Your task to perform on an android device: refresh tabs in the chrome app Image 0: 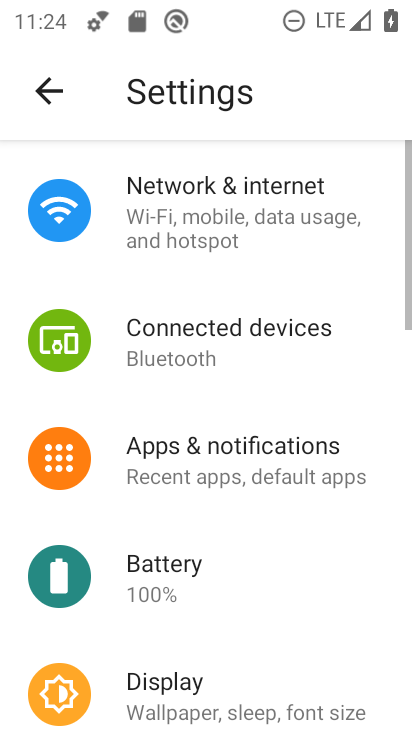
Step 0: press home button
Your task to perform on an android device: refresh tabs in the chrome app Image 1: 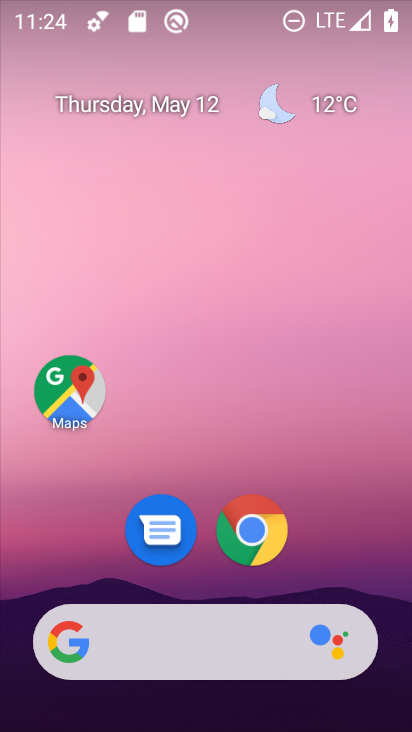
Step 1: click (266, 532)
Your task to perform on an android device: refresh tabs in the chrome app Image 2: 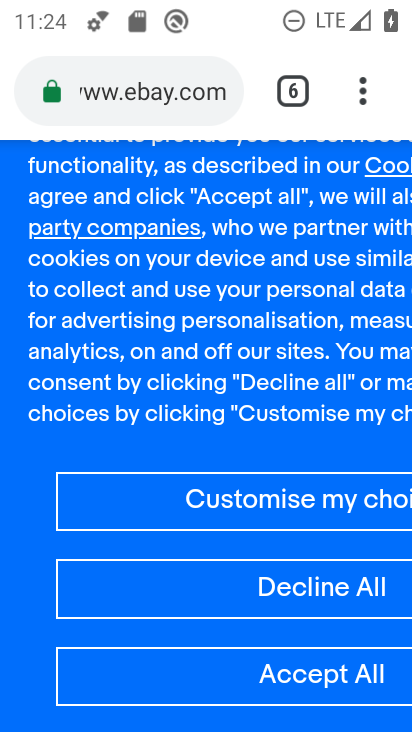
Step 2: click (359, 115)
Your task to perform on an android device: refresh tabs in the chrome app Image 3: 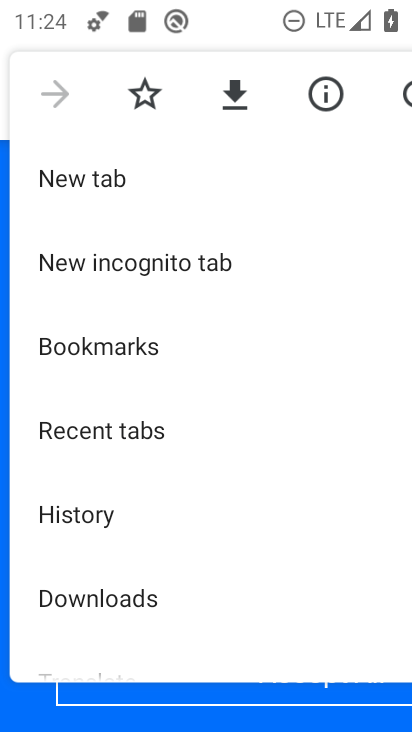
Step 3: click (406, 96)
Your task to perform on an android device: refresh tabs in the chrome app Image 4: 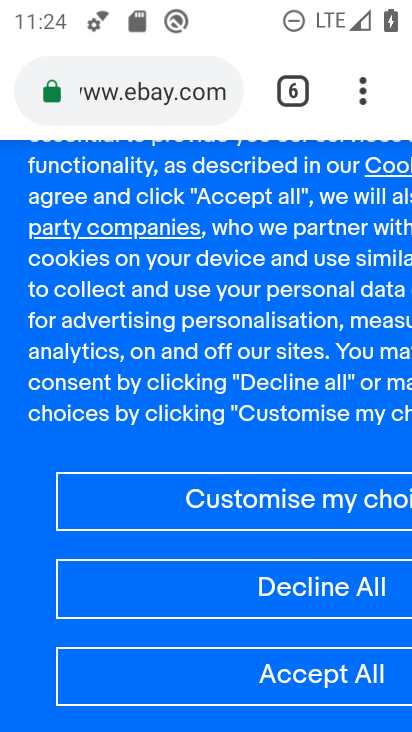
Step 4: task complete